Your task to perform on an android device: delete location history Image 0: 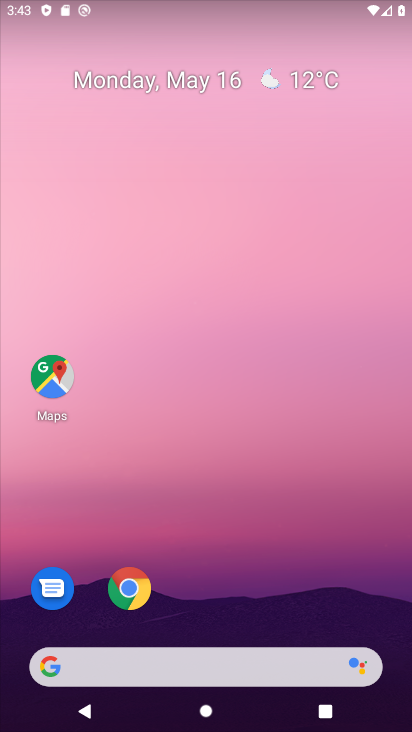
Step 0: drag from (215, 392) to (173, 141)
Your task to perform on an android device: delete location history Image 1: 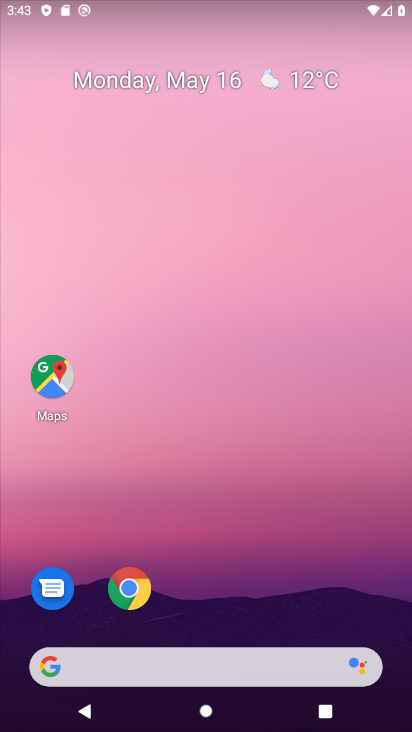
Step 1: drag from (246, 538) to (197, 9)
Your task to perform on an android device: delete location history Image 2: 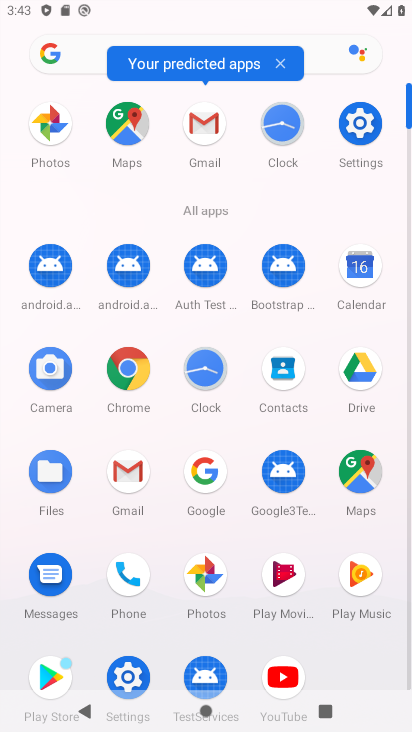
Step 2: click (351, 119)
Your task to perform on an android device: delete location history Image 3: 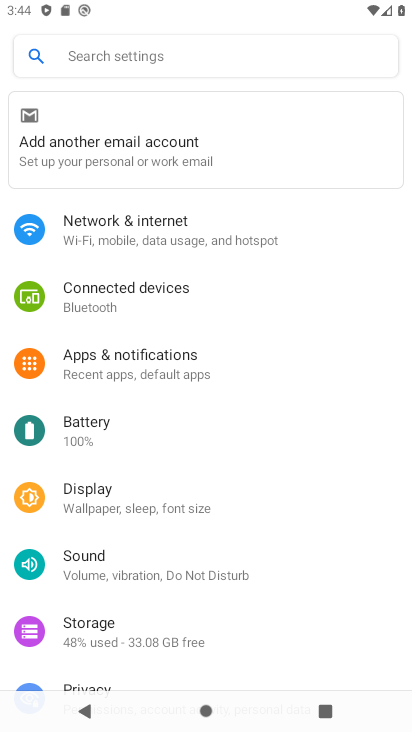
Step 3: drag from (254, 356) to (250, 247)
Your task to perform on an android device: delete location history Image 4: 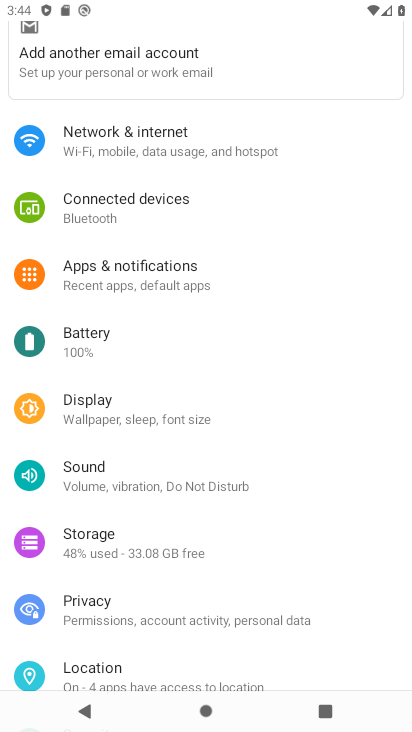
Step 4: click (175, 666)
Your task to perform on an android device: delete location history Image 5: 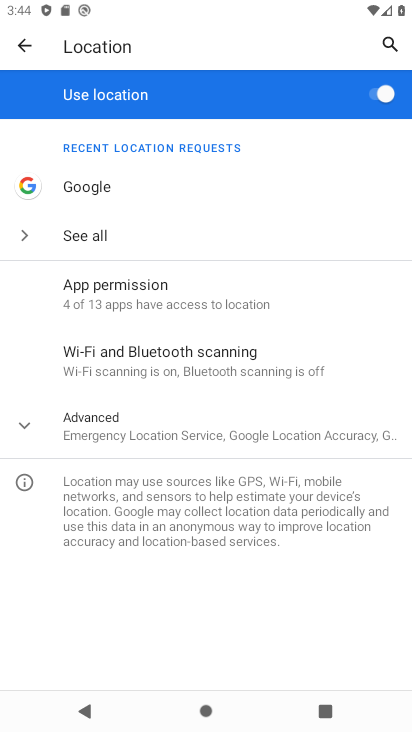
Step 5: click (115, 412)
Your task to perform on an android device: delete location history Image 6: 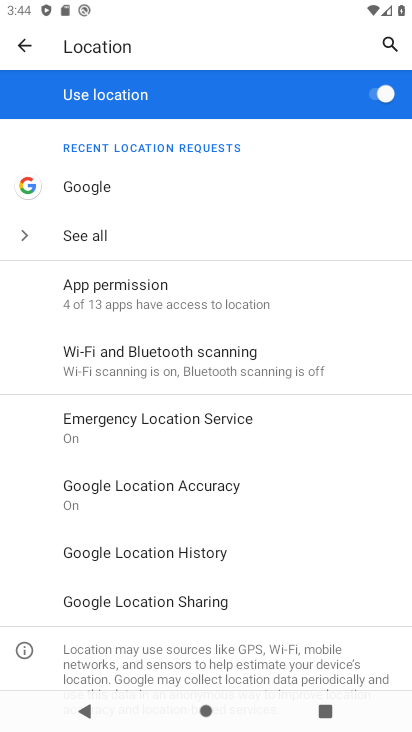
Step 6: click (196, 548)
Your task to perform on an android device: delete location history Image 7: 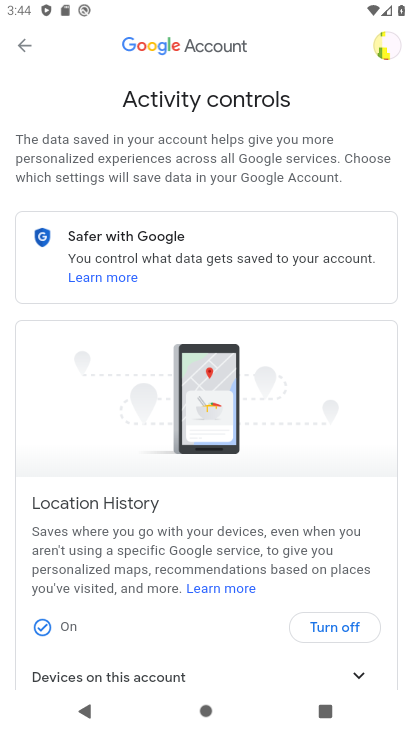
Step 7: drag from (153, 621) to (97, 159)
Your task to perform on an android device: delete location history Image 8: 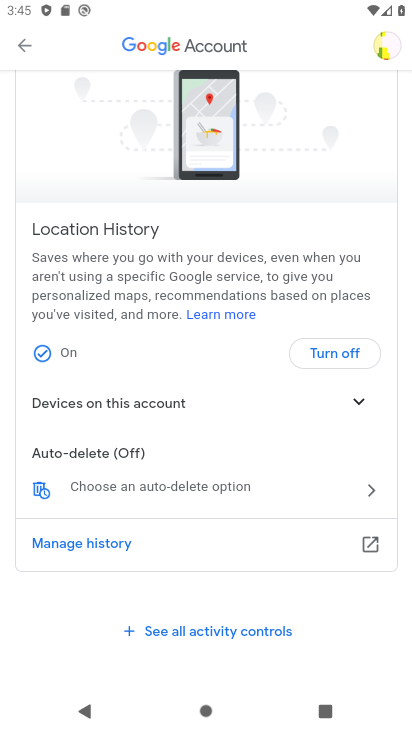
Step 8: click (46, 488)
Your task to perform on an android device: delete location history Image 9: 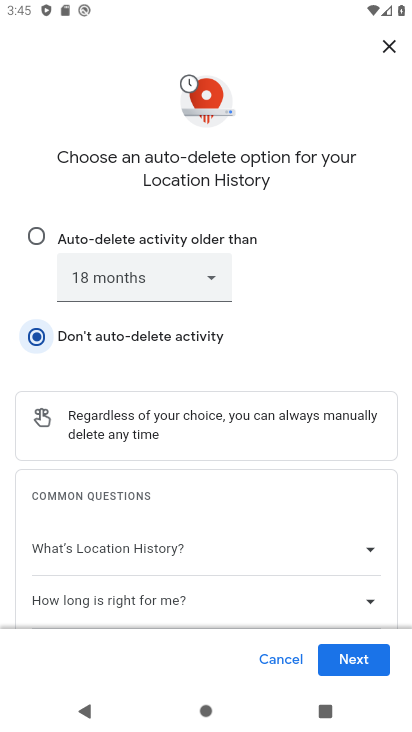
Step 9: click (228, 552)
Your task to perform on an android device: delete location history Image 10: 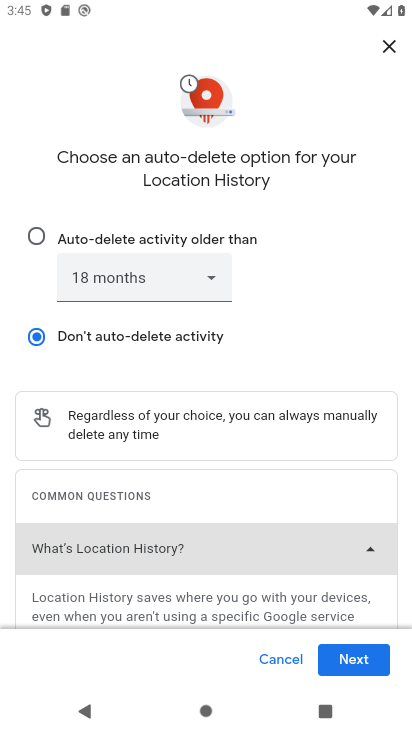
Step 10: task complete